Your task to perform on an android device: Open Google Image 0: 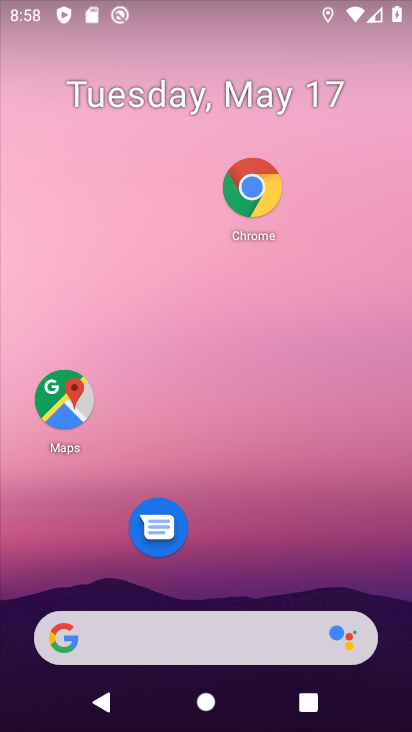
Step 0: click (274, 213)
Your task to perform on an android device: Open Google Image 1: 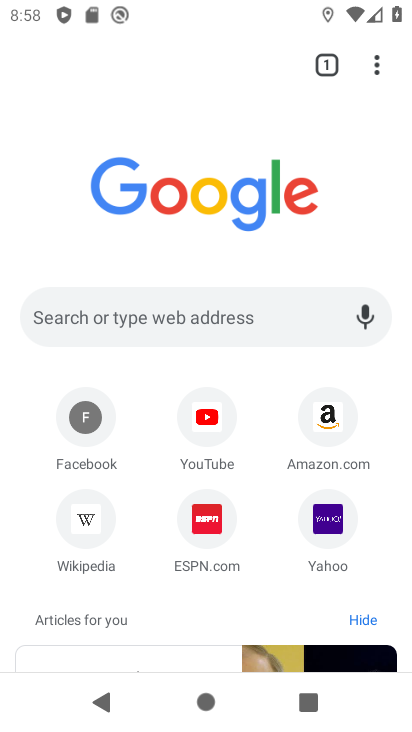
Step 1: task complete